Your task to perform on an android device: snooze an email in the gmail app Image 0: 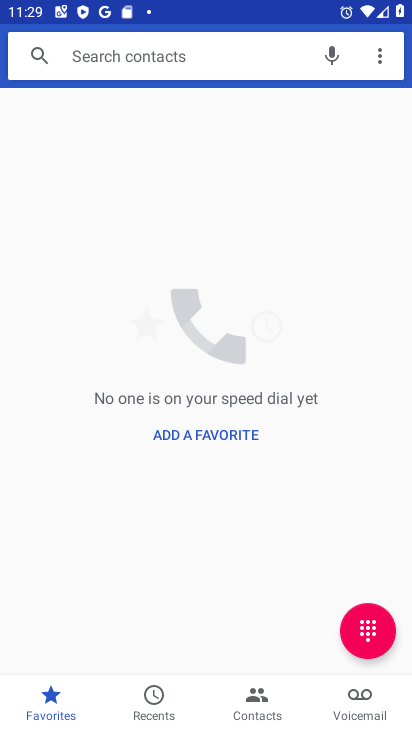
Step 0: press home button
Your task to perform on an android device: snooze an email in the gmail app Image 1: 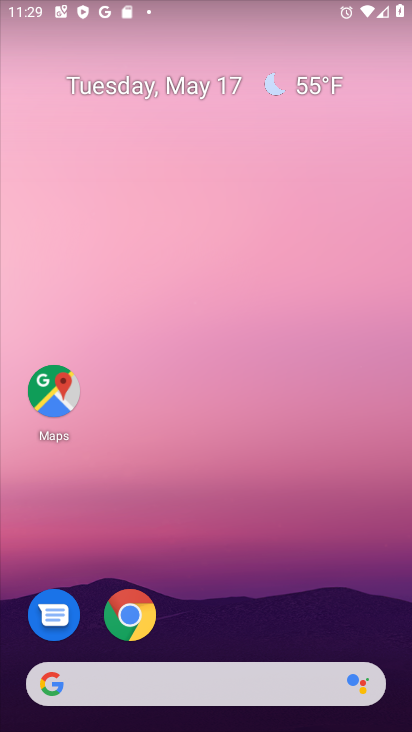
Step 1: drag from (367, 620) to (338, 155)
Your task to perform on an android device: snooze an email in the gmail app Image 2: 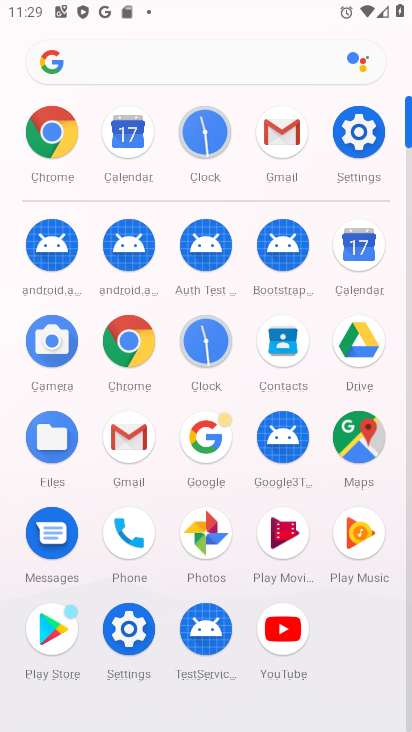
Step 2: click (120, 448)
Your task to perform on an android device: snooze an email in the gmail app Image 3: 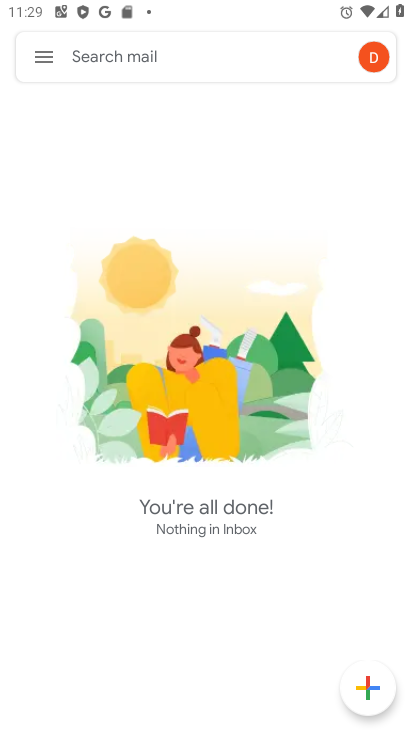
Step 3: click (46, 51)
Your task to perform on an android device: snooze an email in the gmail app Image 4: 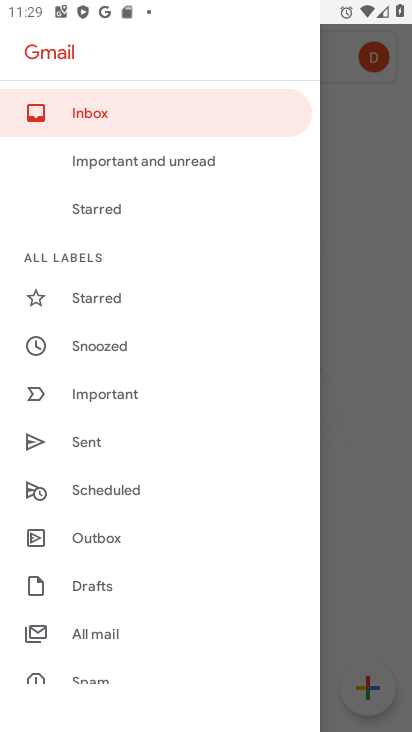
Step 4: click (88, 639)
Your task to perform on an android device: snooze an email in the gmail app Image 5: 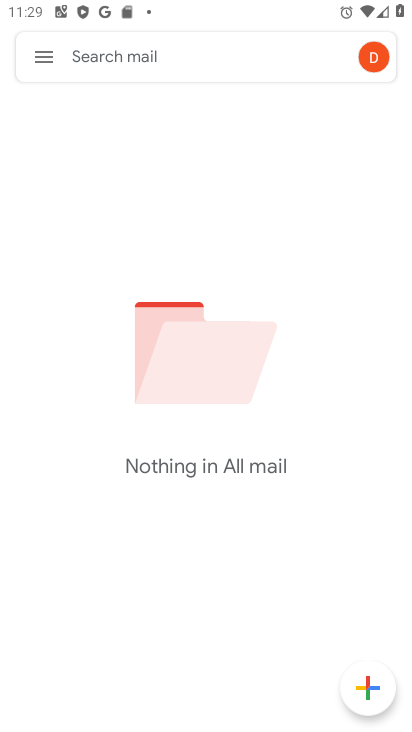
Step 5: task complete